Your task to perform on an android device: find photos in the google photos app Image 0: 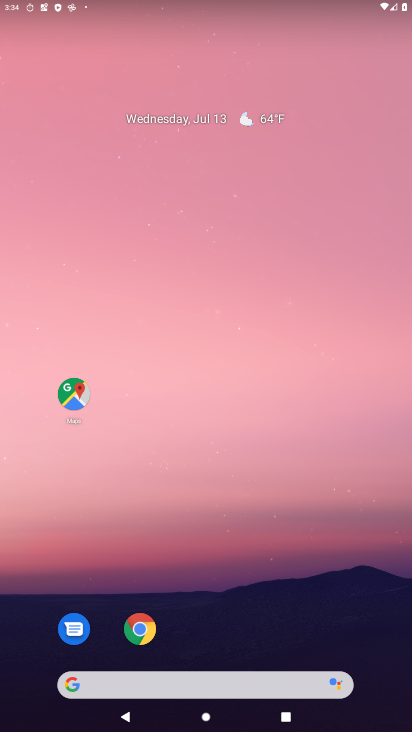
Step 0: drag from (293, 660) to (307, 53)
Your task to perform on an android device: find photos in the google photos app Image 1: 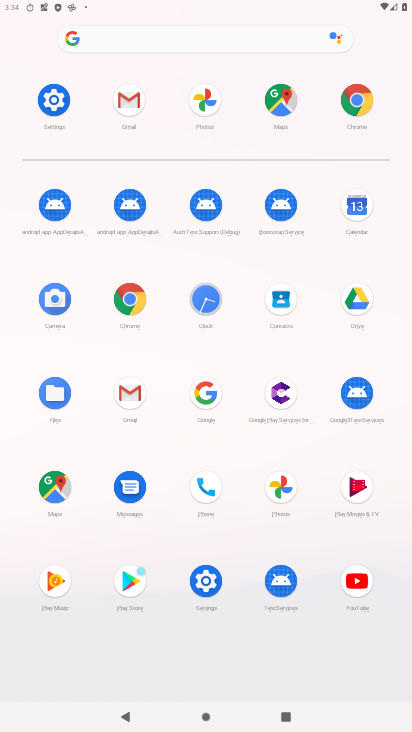
Step 1: click (283, 493)
Your task to perform on an android device: find photos in the google photos app Image 2: 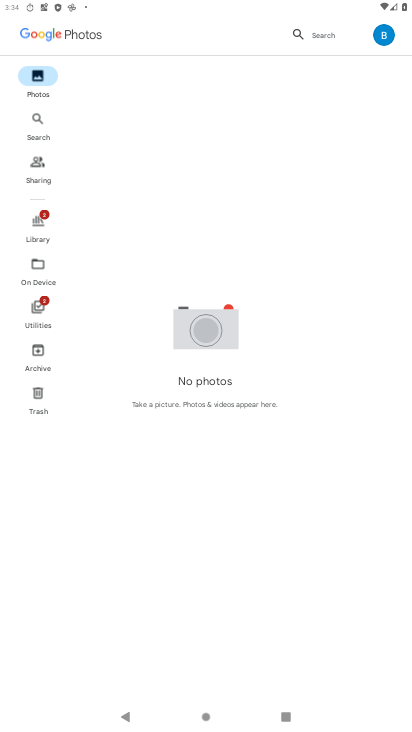
Step 2: task complete